Your task to perform on an android device: Open the calendar app, open the side menu, and click the "Day" option Image 0: 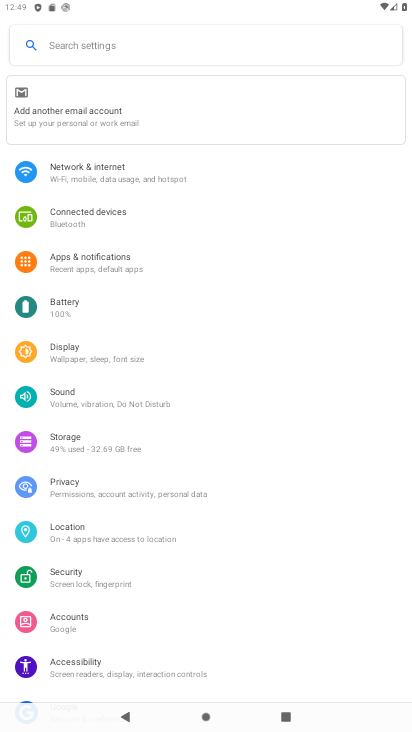
Step 0: press home button
Your task to perform on an android device: Open the calendar app, open the side menu, and click the "Day" option Image 1: 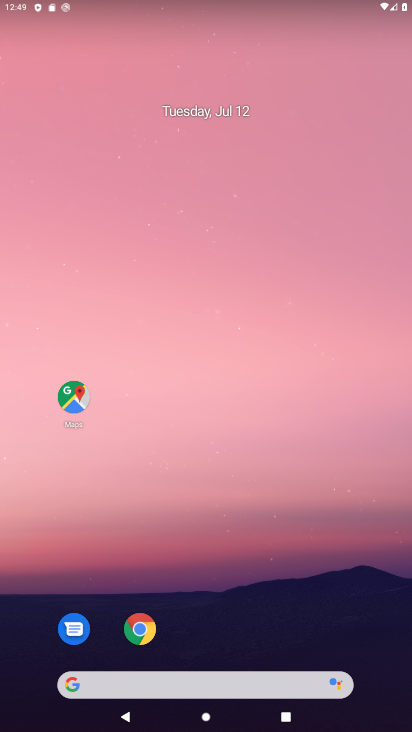
Step 1: drag from (223, 650) to (242, 0)
Your task to perform on an android device: Open the calendar app, open the side menu, and click the "Day" option Image 2: 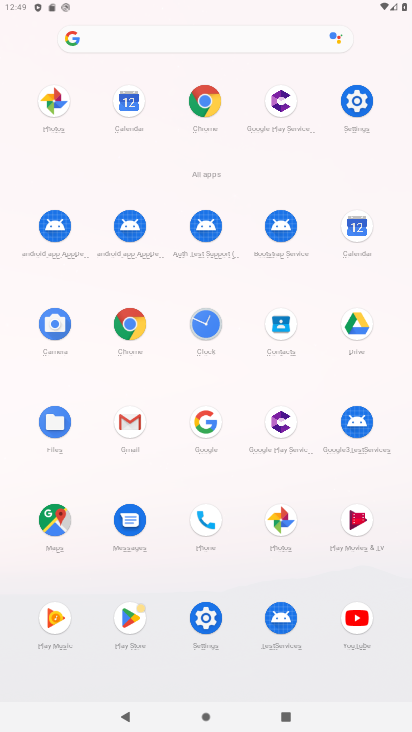
Step 2: click (364, 226)
Your task to perform on an android device: Open the calendar app, open the side menu, and click the "Day" option Image 3: 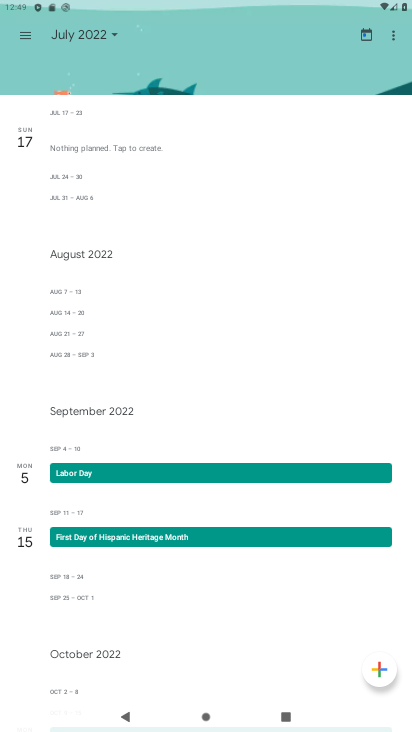
Step 3: click (20, 17)
Your task to perform on an android device: Open the calendar app, open the side menu, and click the "Day" option Image 4: 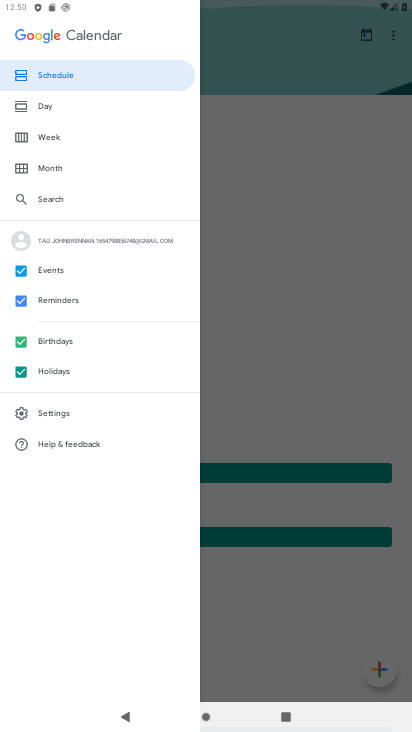
Step 4: click (50, 107)
Your task to perform on an android device: Open the calendar app, open the side menu, and click the "Day" option Image 5: 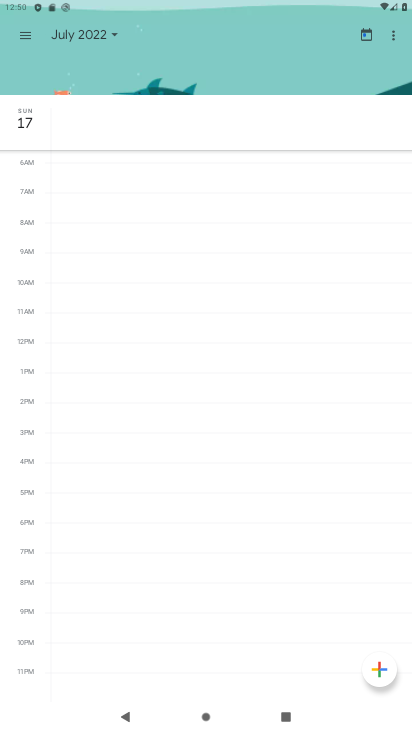
Step 5: task complete